Your task to perform on an android device: Go to eBay Image 0: 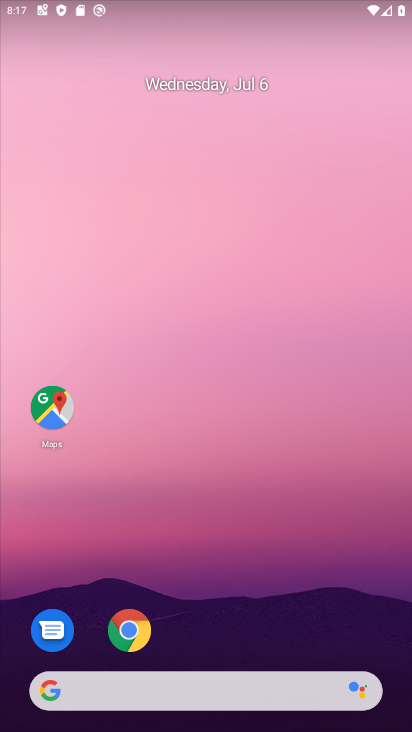
Step 0: click (127, 628)
Your task to perform on an android device: Go to eBay Image 1: 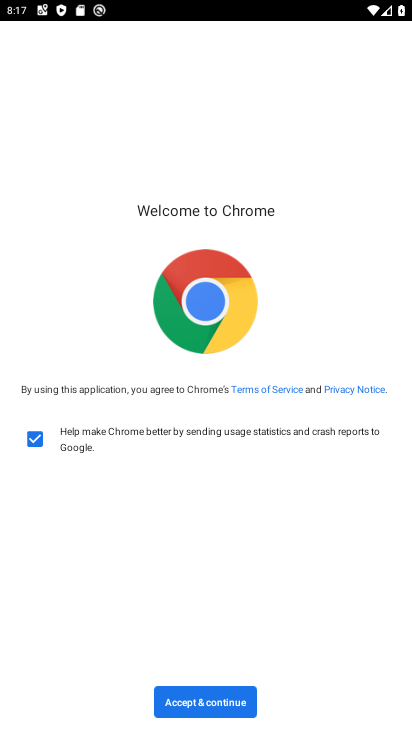
Step 1: click (194, 701)
Your task to perform on an android device: Go to eBay Image 2: 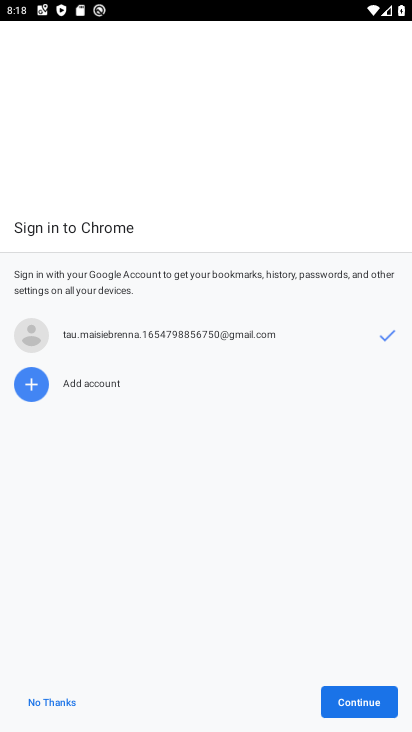
Step 2: click (355, 694)
Your task to perform on an android device: Go to eBay Image 3: 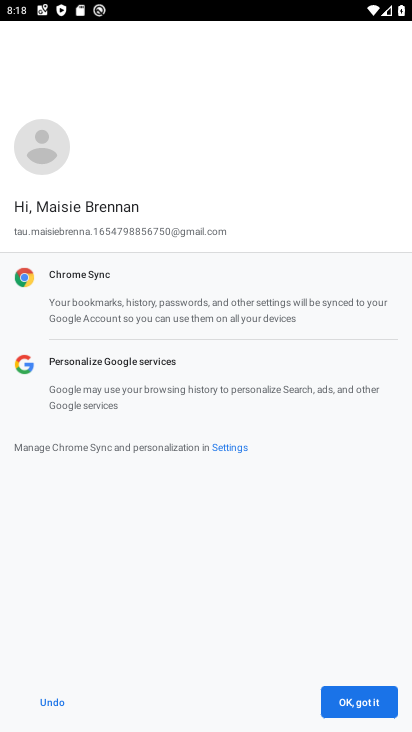
Step 3: click (357, 700)
Your task to perform on an android device: Go to eBay Image 4: 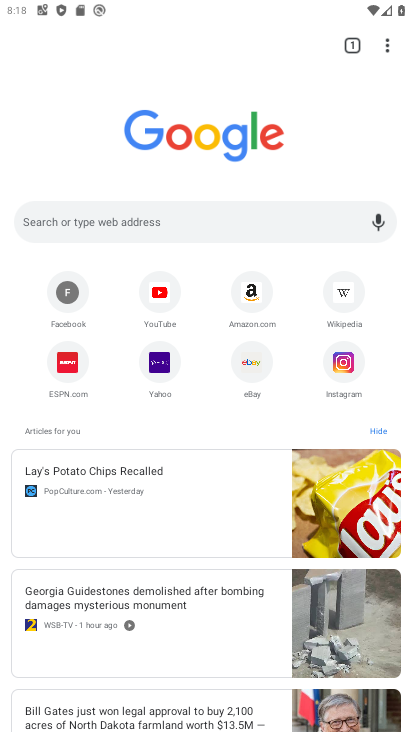
Step 4: click (177, 226)
Your task to perform on an android device: Go to eBay Image 5: 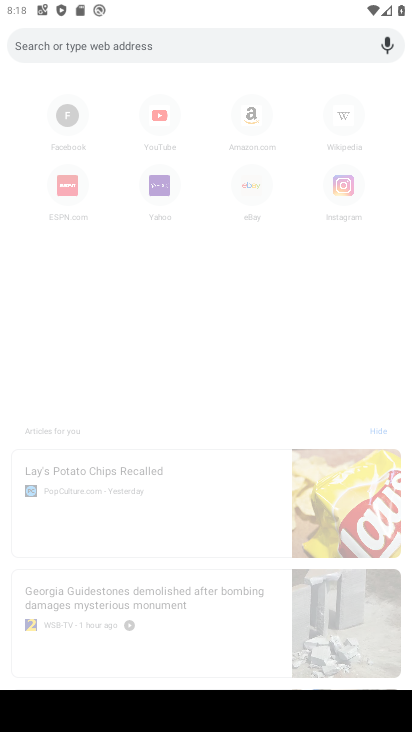
Step 5: type "eBay"
Your task to perform on an android device: Go to eBay Image 6: 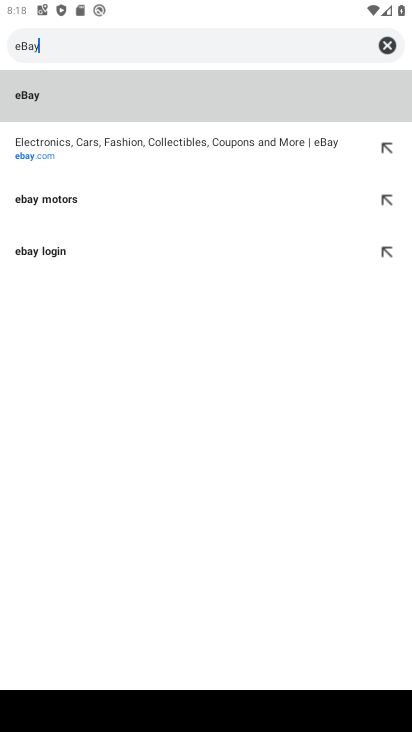
Step 6: click (44, 99)
Your task to perform on an android device: Go to eBay Image 7: 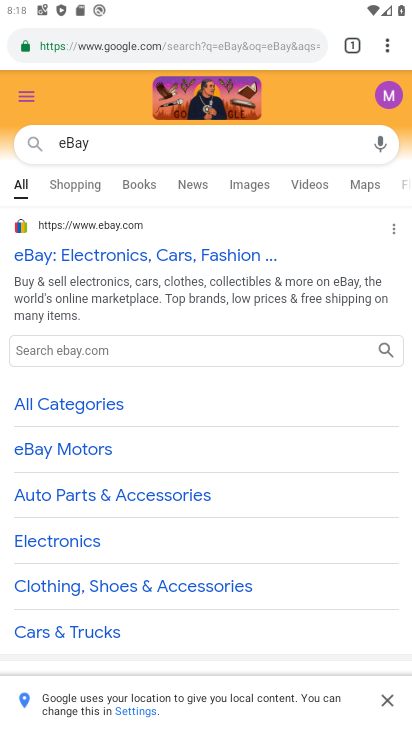
Step 7: task complete